Your task to perform on an android device: all mails in gmail Image 0: 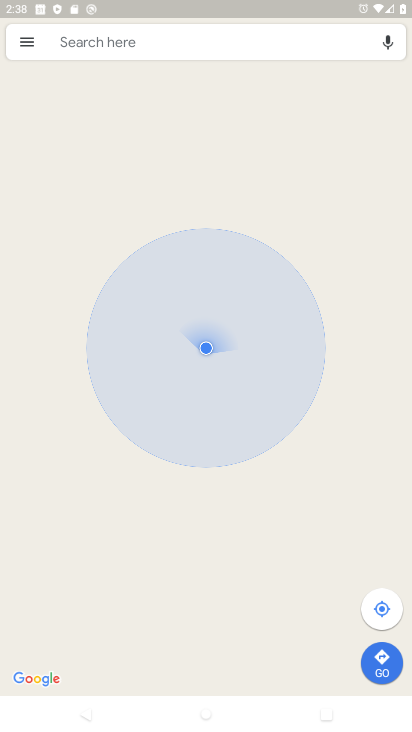
Step 0: press home button
Your task to perform on an android device: all mails in gmail Image 1: 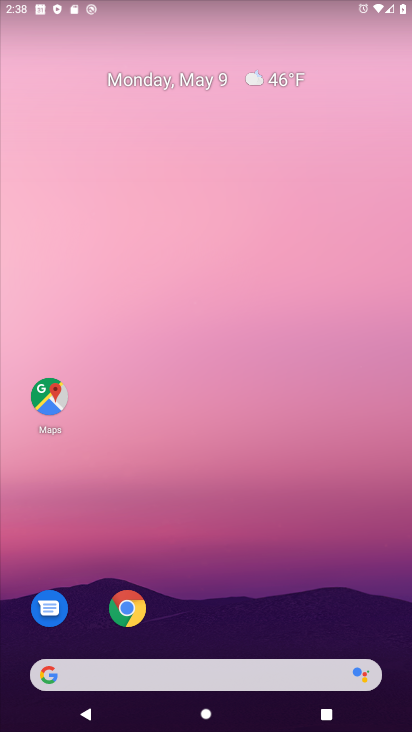
Step 1: drag from (107, 553) to (185, 204)
Your task to perform on an android device: all mails in gmail Image 2: 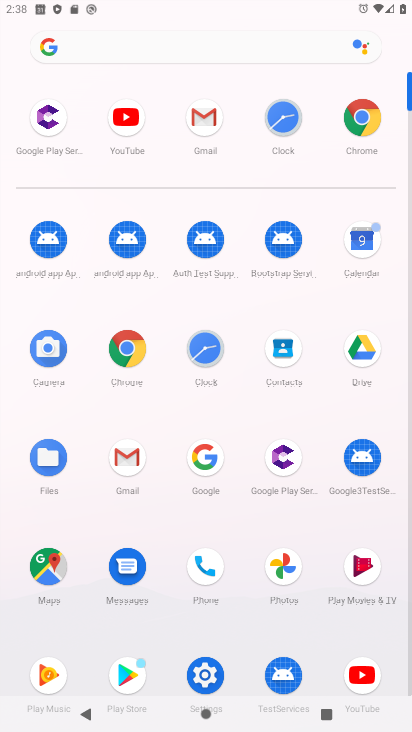
Step 2: click (205, 120)
Your task to perform on an android device: all mails in gmail Image 3: 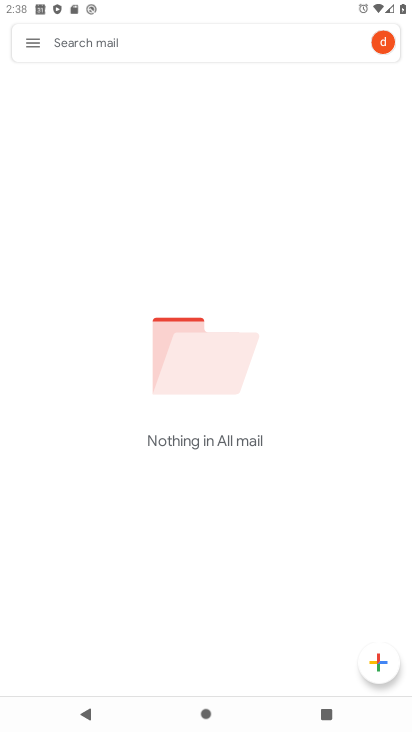
Step 3: click (30, 52)
Your task to perform on an android device: all mails in gmail Image 4: 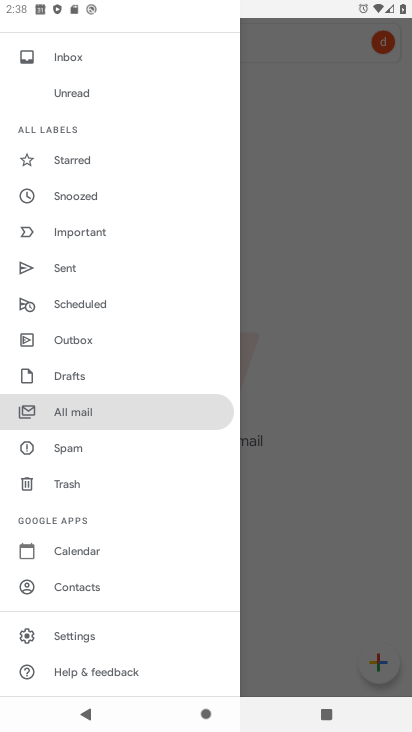
Step 4: click (113, 408)
Your task to perform on an android device: all mails in gmail Image 5: 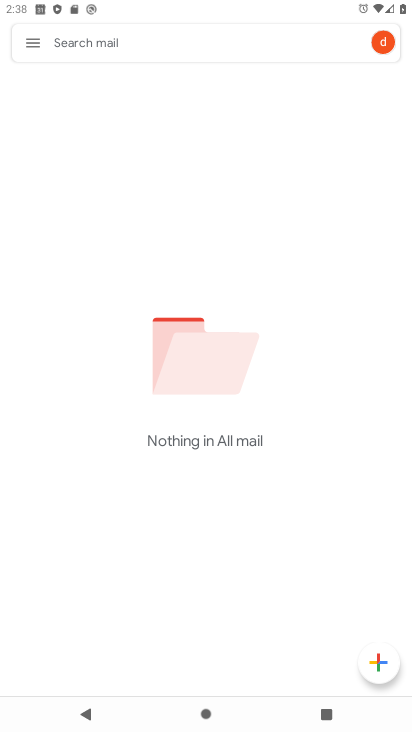
Step 5: task complete